Your task to perform on an android device: toggle airplane mode Image 0: 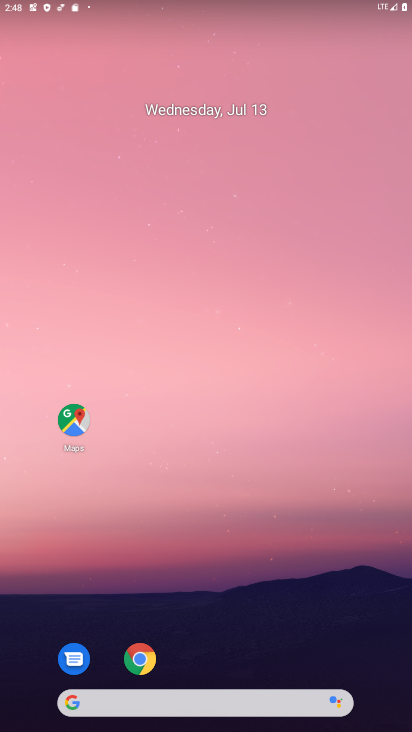
Step 0: drag from (378, 653) to (333, 185)
Your task to perform on an android device: toggle airplane mode Image 1: 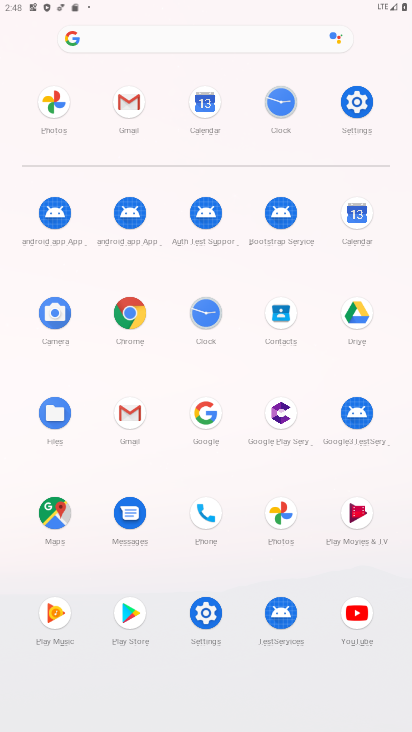
Step 1: click (204, 611)
Your task to perform on an android device: toggle airplane mode Image 2: 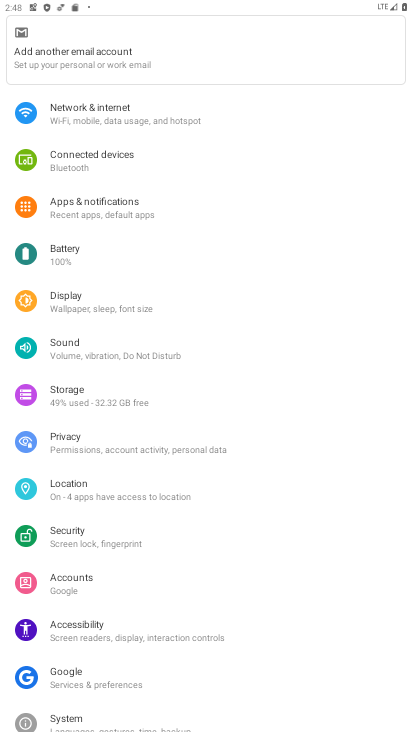
Step 2: click (76, 109)
Your task to perform on an android device: toggle airplane mode Image 3: 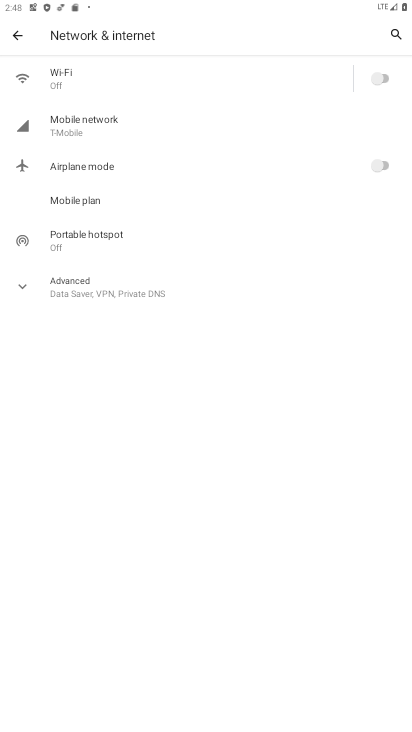
Step 3: click (384, 164)
Your task to perform on an android device: toggle airplane mode Image 4: 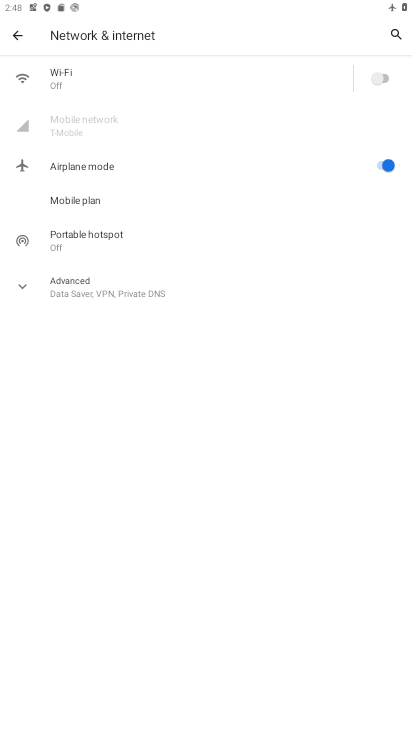
Step 4: task complete